Your task to perform on an android device: check google app version Image 0: 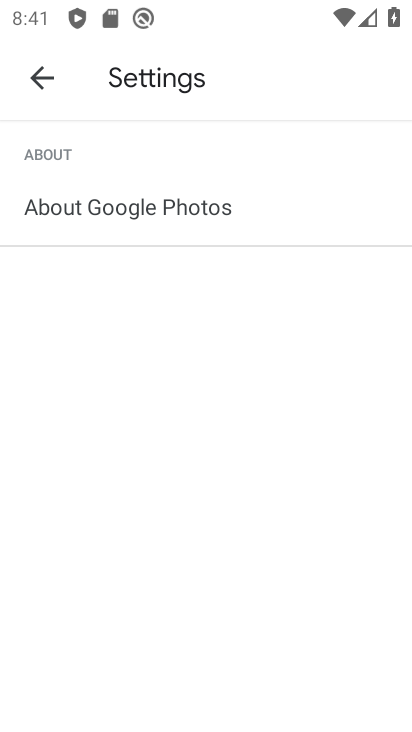
Step 0: press home button
Your task to perform on an android device: check google app version Image 1: 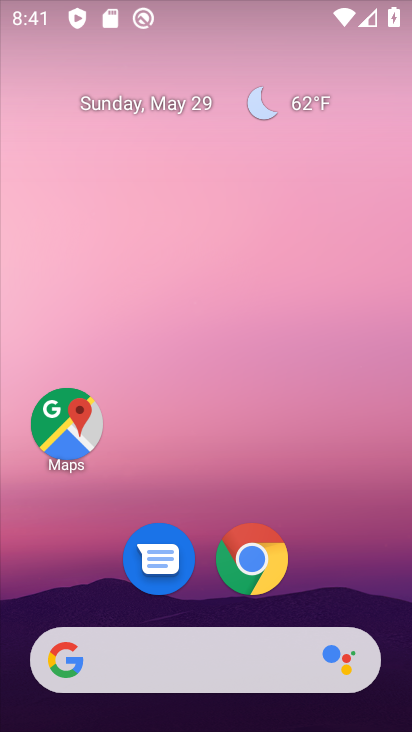
Step 1: drag from (225, 569) to (211, 193)
Your task to perform on an android device: check google app version Image 2: 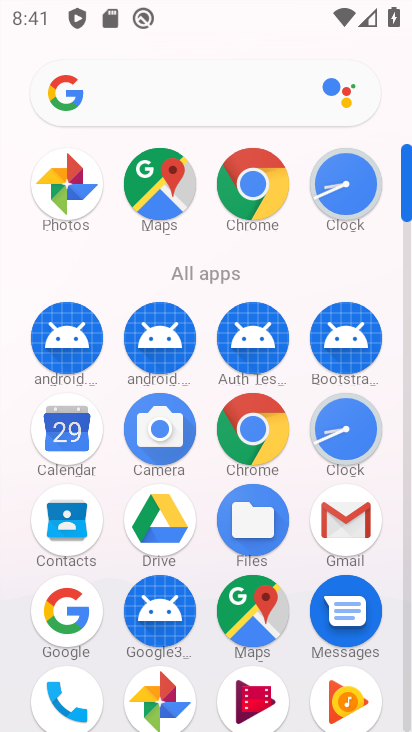
Step 2: drag from (205, 643) to (227, 281)
Your task to perform on an android device: check google app version Image 3: 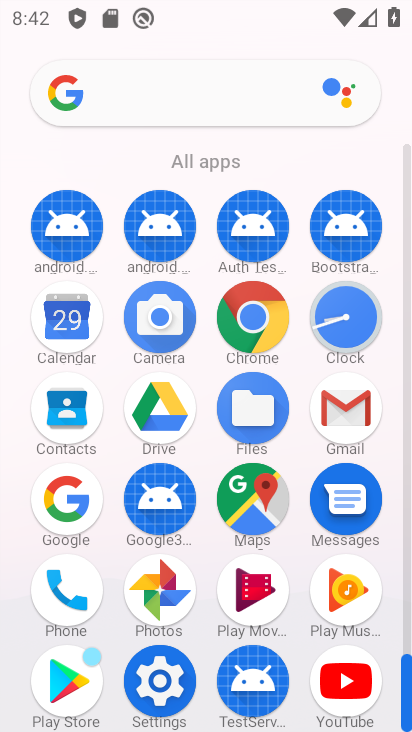
Step 3: click (64, 516)
Your task to perform on an android device: check google app version Image 4: 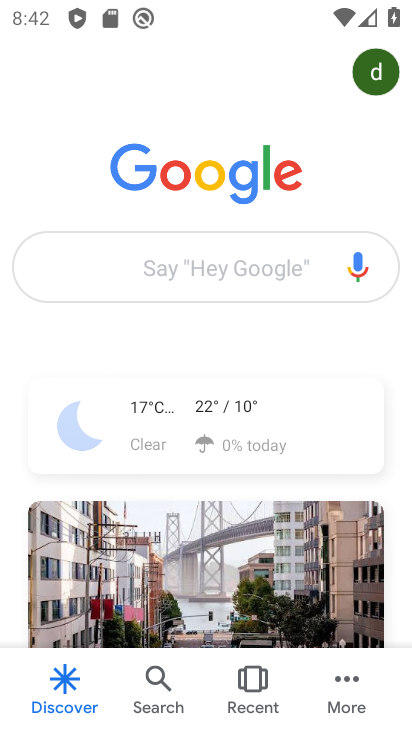
Step 4: click (340, 685)
Your task to perform on an android device: check google app version Image 5: 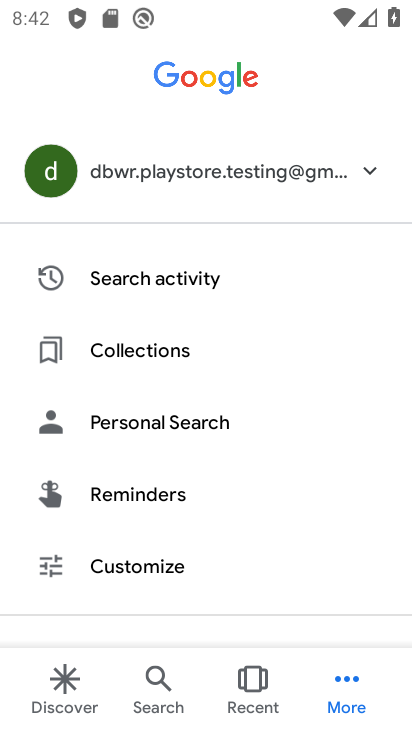
Step 5: drag from (225, 583) to (254, 333)
Your task to perform on an android device: check google app version Image 6: 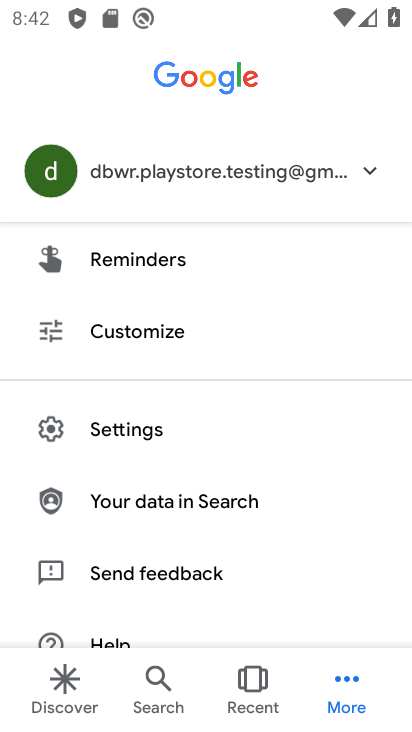
Step 6: click (127, 428)
Your task to perform on an android device: check google app version Image 7: 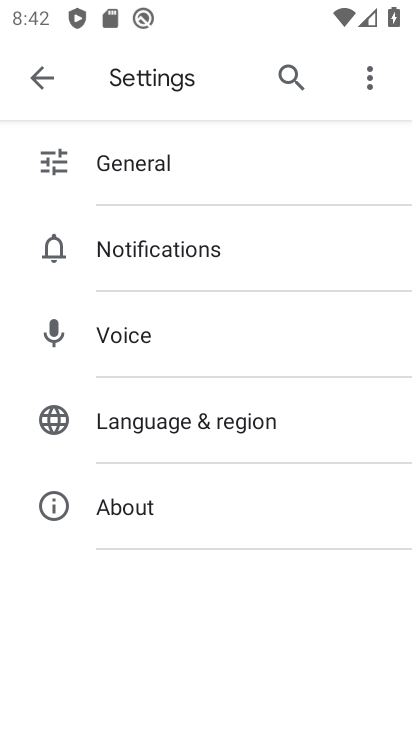
Step 7: click (146, 504)
Your task to perform on an android device: check google app version Image 8: 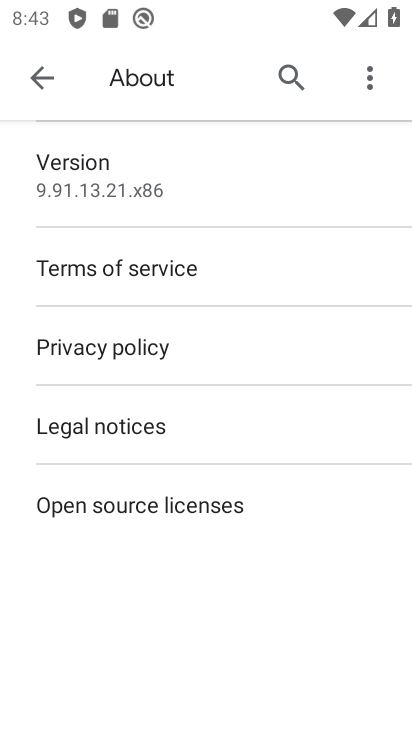
Step 8: task complete